Your task to perform on an android device: clear history in the chrome app Image 0: 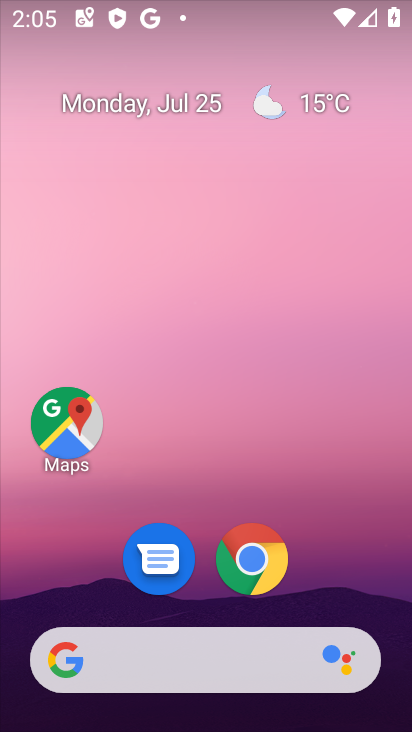
Step 0: click (268, 553)
Your task to perform on an android device: clear history in the chrome app Image 1: 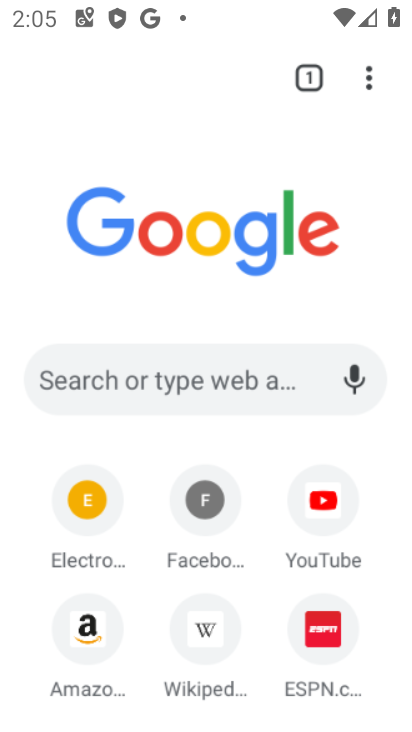
Step 1: click (368, 69)
Your task to perform on an android device: clear history in the chrome app Image 2: 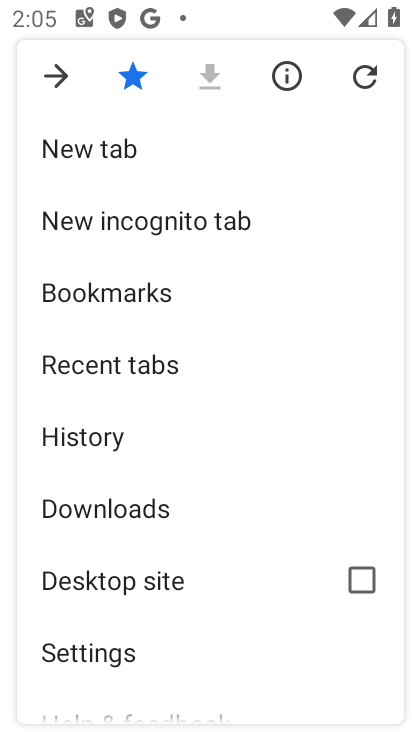
Step 2: click (82, 433)
Your task to perform on an android device: clear history in the chrome app Image 3: 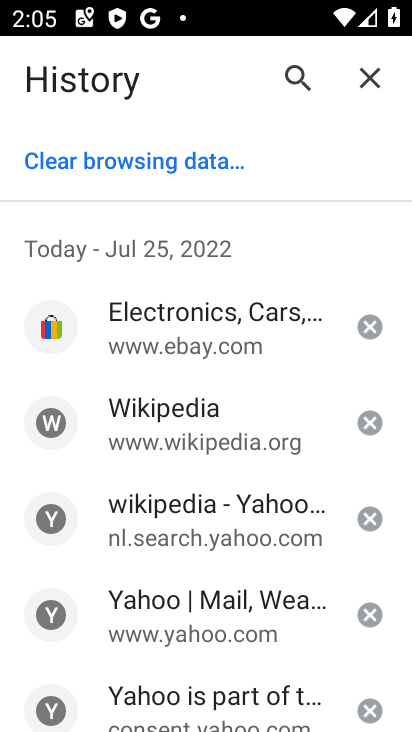
Step 3: click (104, 155)
Your task to perform on an android device: clear history in the chrome app Image 4: 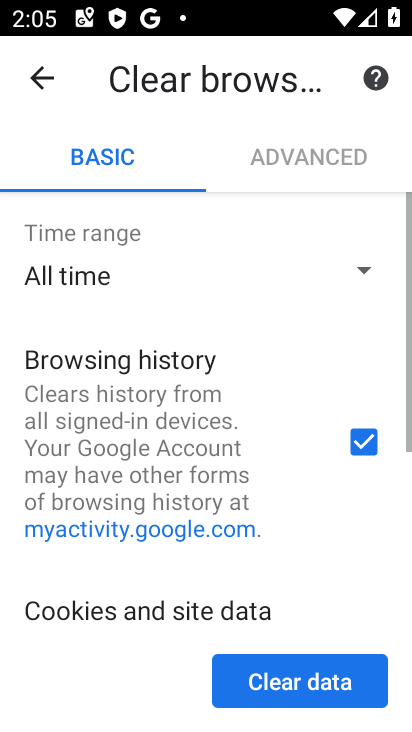
Step 4: drag from (208, 558) to (311, 126)
Your task to perform on an android device: clear history in the chrome app Image 5: 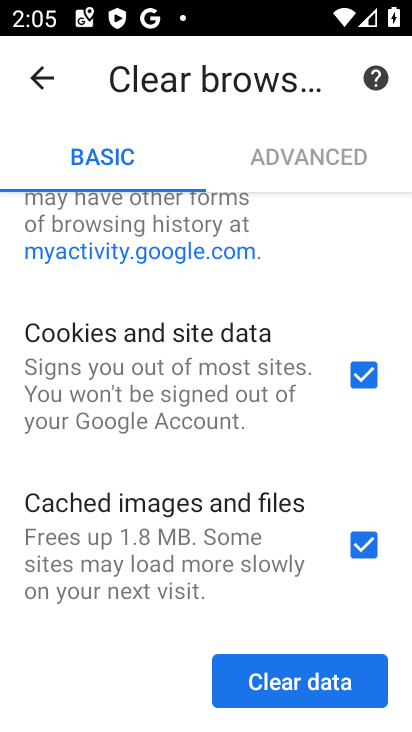
Step 5: click (265, 674)
Your task to perform on an android device: clear history in the chrome app Image 6: 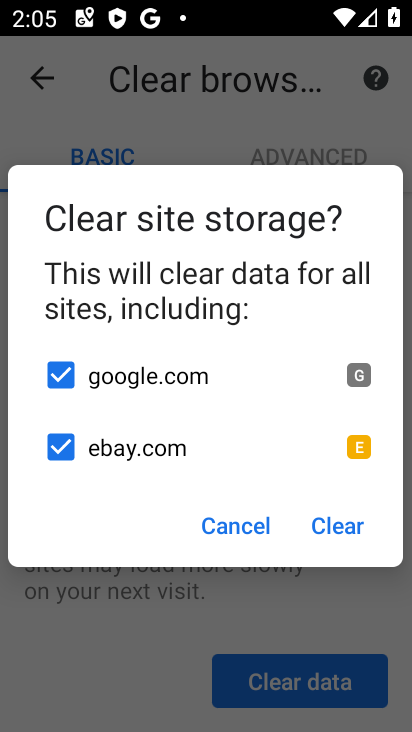
Step 6: click (333, 519)
Your task to perform on an android device: clear history in the chrome app Image 7: 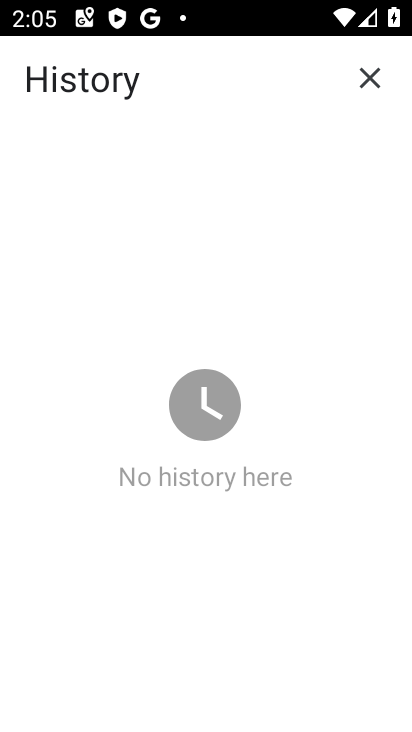
Step 7: task complete